Your task to perform on an android device: turn notification dots on Image 0: 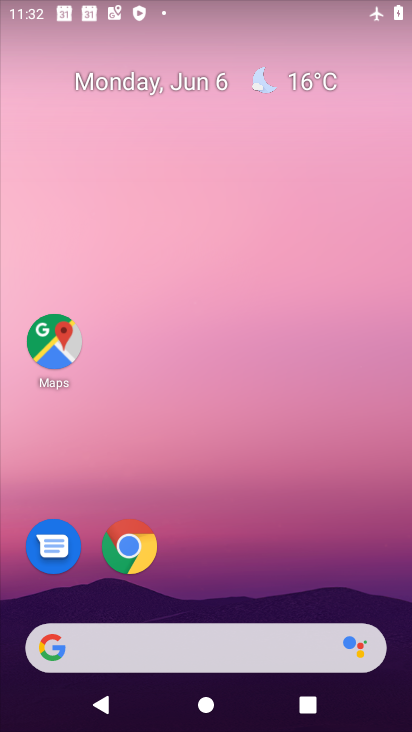
Step 0: drag from (276, 489) to (293, 65)
Your task to perform on an android device: turn notification dots on Image 1: 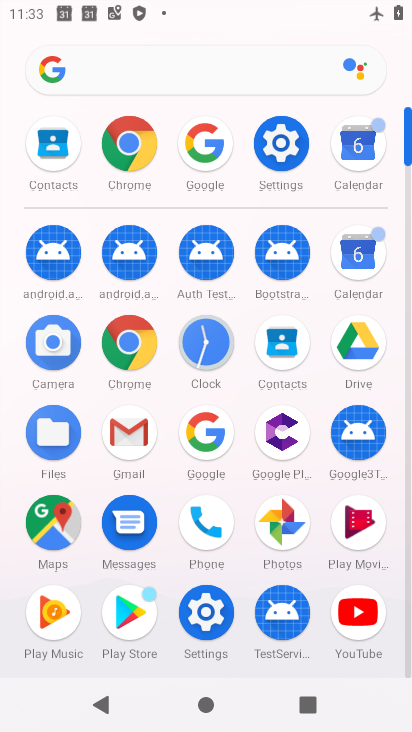
Step 1: click (288, 127)
Your task to perform on an android device: turn notification dots on Image 2: 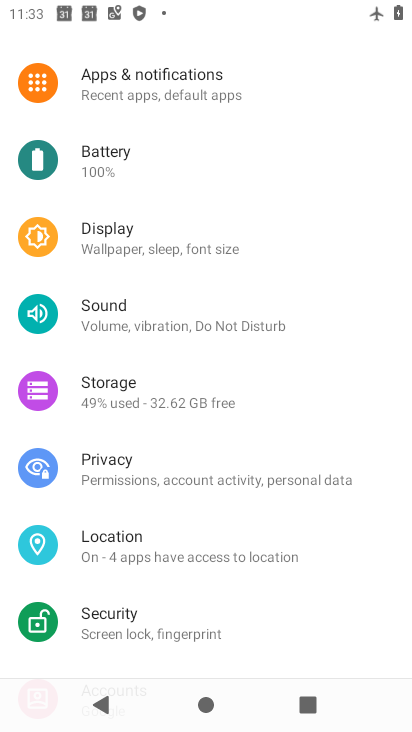
Step 2: click (163, 99)
Your task to perform on an android device: turn notification dots on Image 3: 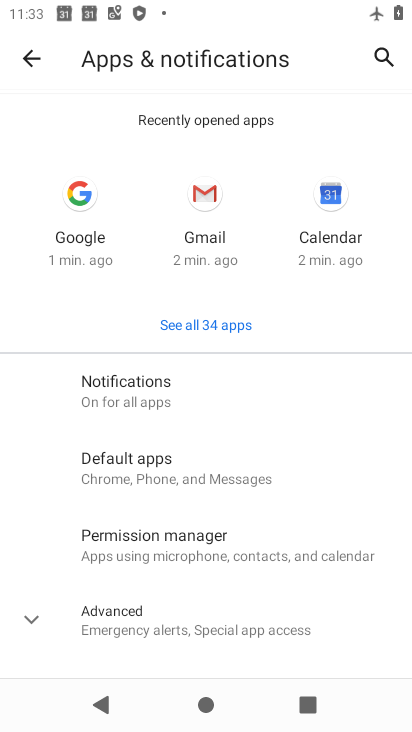
Step 3: click (172, 363)
Your task to perform on an android device: turn notification dots on Image 4: 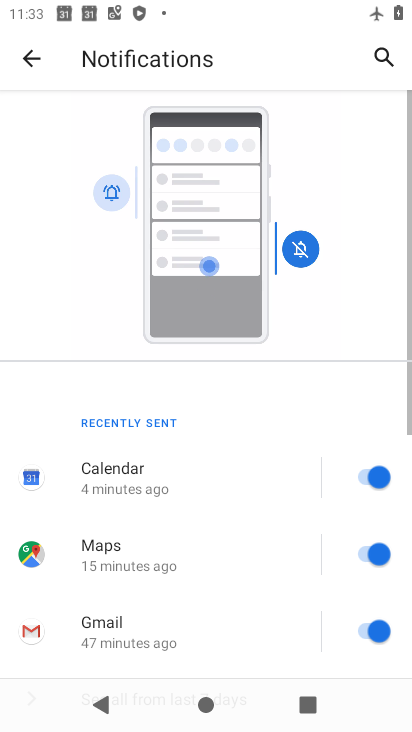
Step 4: drag from (261, 496) to (267, 1)
Your task to perform on an android device: turn notification dots on Image 5: 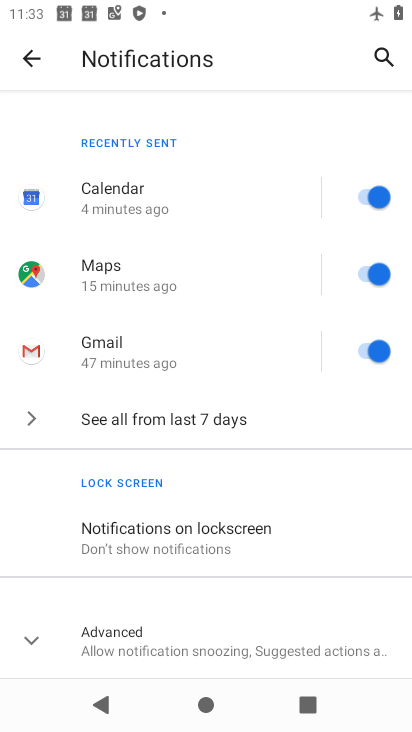
Step 5: click (175, 626)
Your task to perform on an android device: turn notification dots on Image 6: 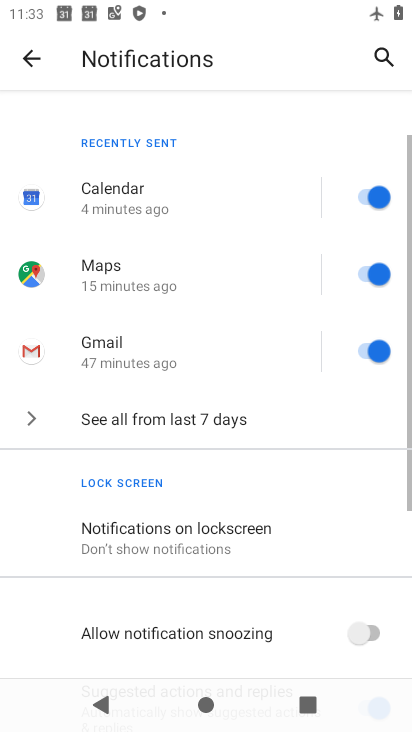
Step 6: task complete